Your task to perform on an android device: Show me the alarms in the clock app Image 0: 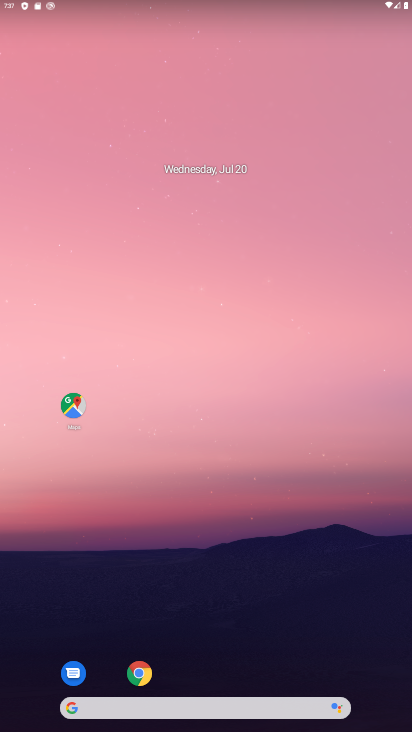
Step 0: drag from (166, 671) to (228, 68)
Your task to perform on an android device: Show me the alarms in the clock app Image 1: 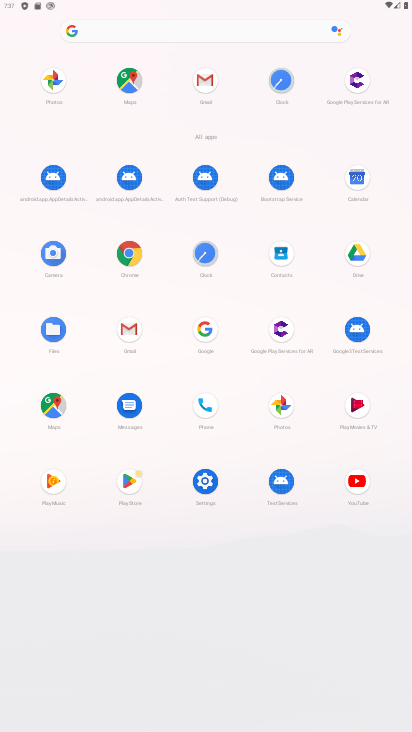
Step 1: click (213, 262)
Your task to perform on an android device: Show me the alarms in the clock app Image 2: 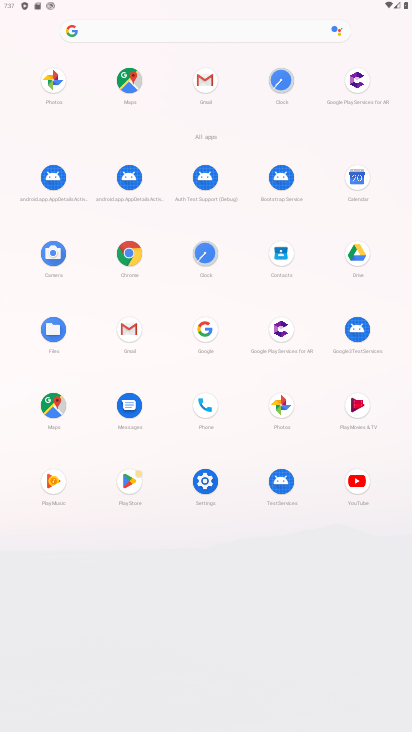
Step 2: click (207, 255)
Your task to perform on an android device: Show me the alarms in the clock app Image 3: 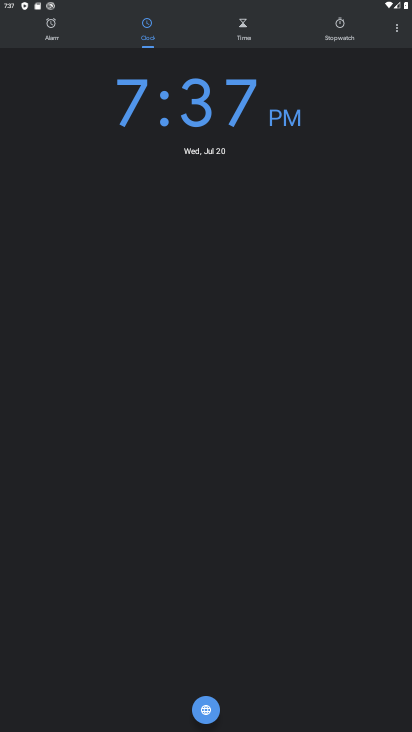
Step 3: click (59, 29)
Your task to perform on an android device: Show me the alarms in the clock app Image 4: 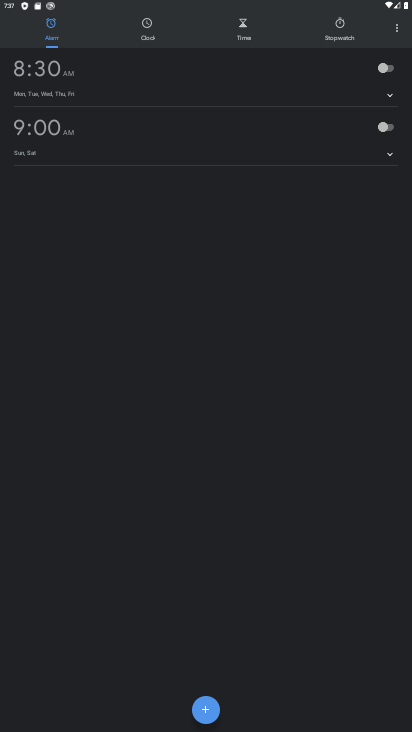
Step 4: click (379, 62)
Your task to perform on an android device: Show me the alarms in the clock app Image 5: 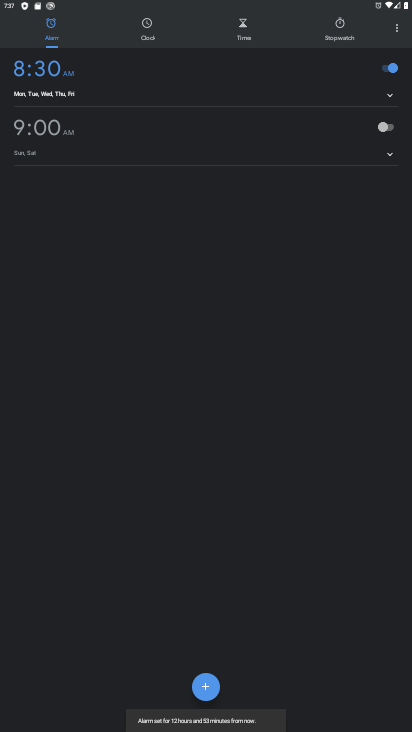
Step 5: drag from (188, 520) to (243, 247)
Your task to perform on an android device: Show me the alarms in the clock app Image 6: 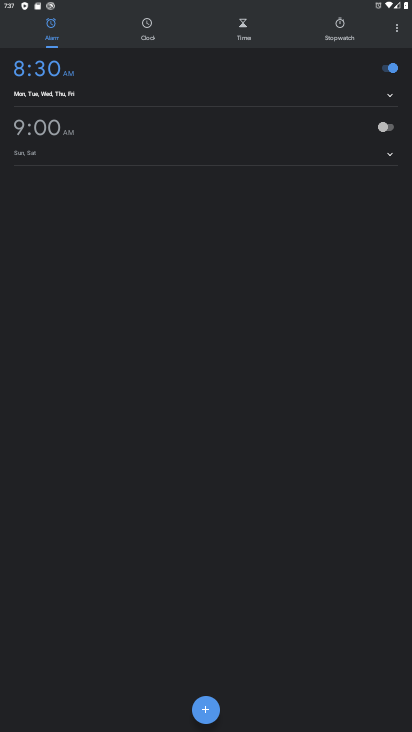
Step 6: drag from (249, 324) to (255, 92)
Your task to perform on an android device: Show me the alarms in the clock app Image 7: 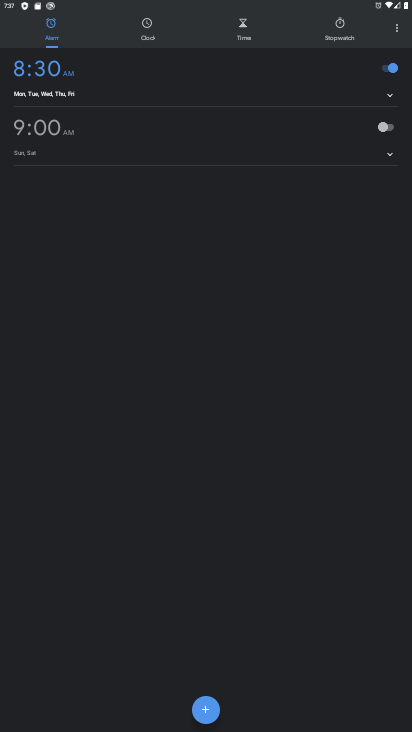
Step 7: click (383, 64)
Your task to perform on an android device: Show me the alarms in the clock app Image 8: 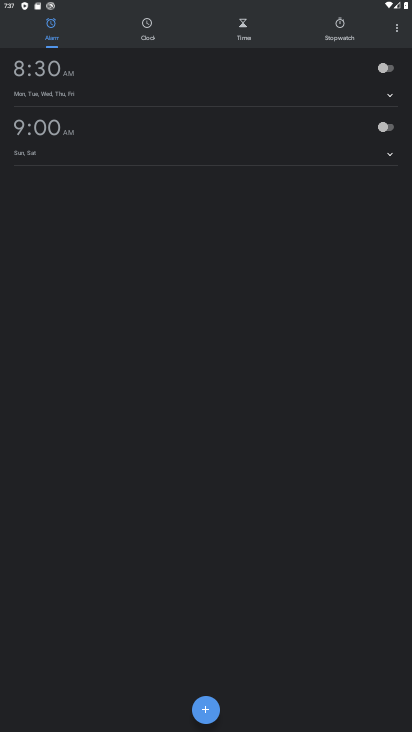
Step 8: task complete